Your task to perform on an android device: turn vacation reply on in the gmail app Image 0: 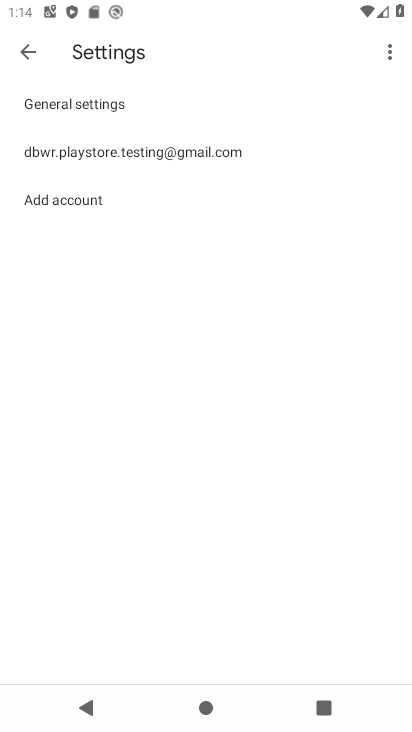
Step 0: press home button
Your task to perform on an android device: turn vacation reply on in the gmail app Image 1: 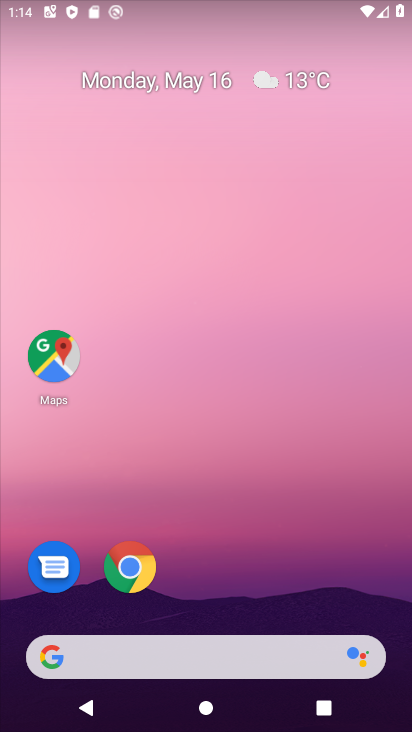
Step 1: drag from (139, 634) to (241, 155)
Your task to perform on an android device: turn vacation reply on in the gmail app Image 2: 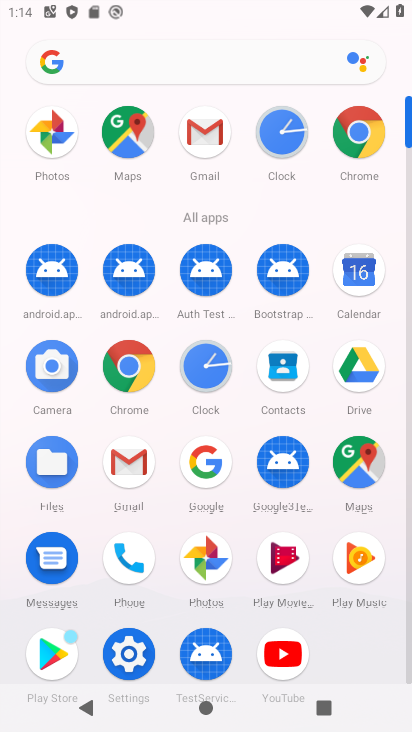
Step 2: click (128, 466)
Your task to perform on an android device: turn vacation reply on in the gmail app Image 3: 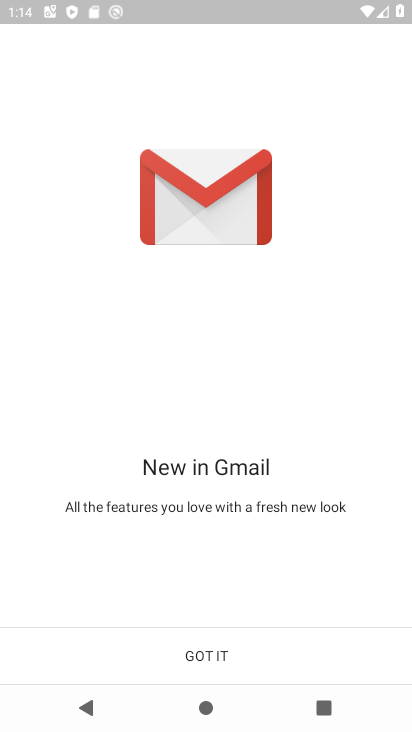
Step 3: click (205, 664)
Your task to perform on an android device: turn vacation reply on in the gmail app Image 4: 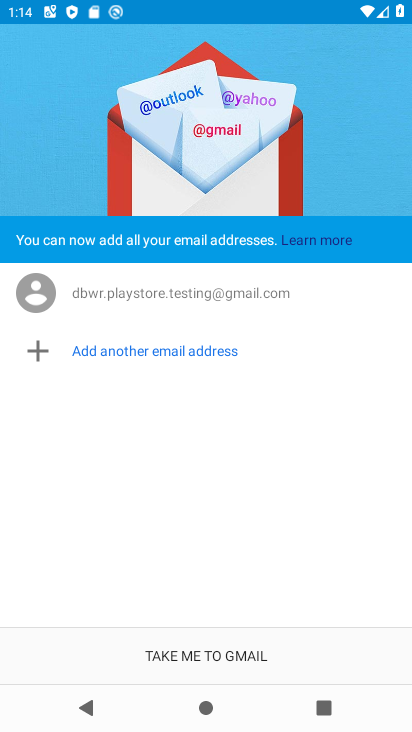
Step 4: click (204, 663)
Your task to perform on an android device: turn vacation reply on in the gmail app Image 5: 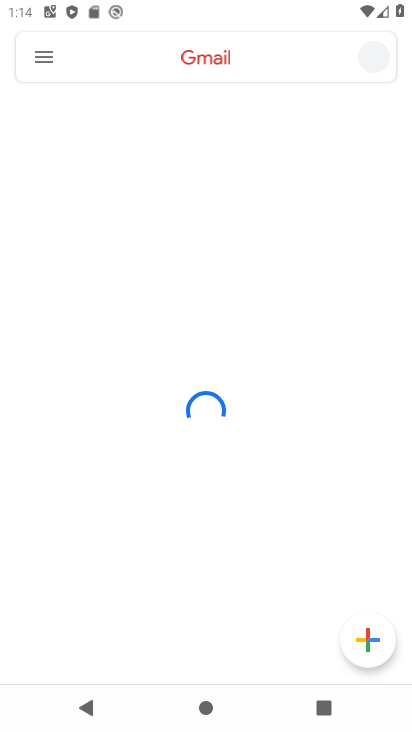
Step 5: click (52, 56)
Your task to perform on an android device: turn vacation reply on in the gmail app Image 6: 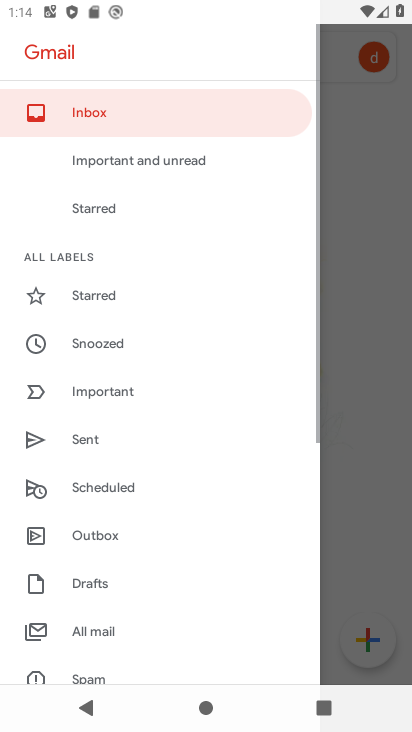
Step 6: drag from (64, 680) to (195, 275)
Your task to perform on an android device: turn vacation reply on in the gmail app Image 7: 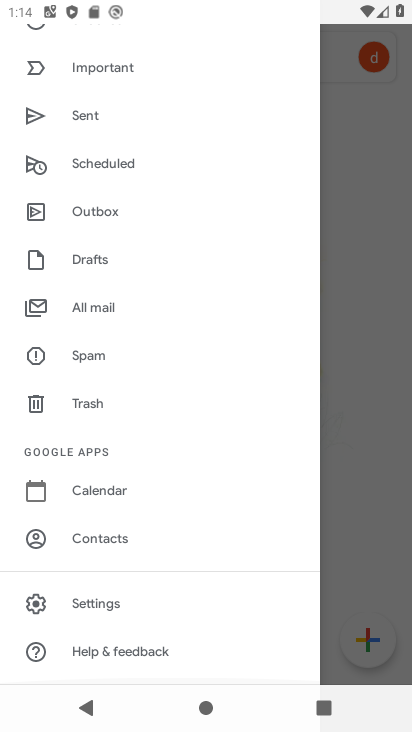
Step 7: drag from (108, 611) to (183, 377)
Your task to perform on an android device: turn vacation reply on in the gmail app Image 8: 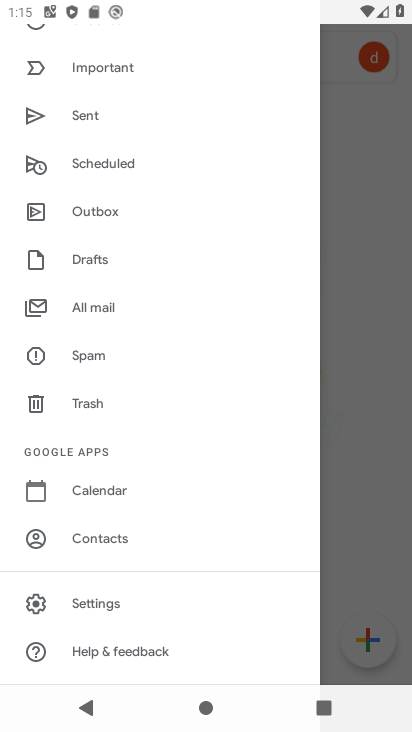
Step 8: click (144, 582)
Your task to perform on an android device: turn vacation reply on in the gmail app Image 9: 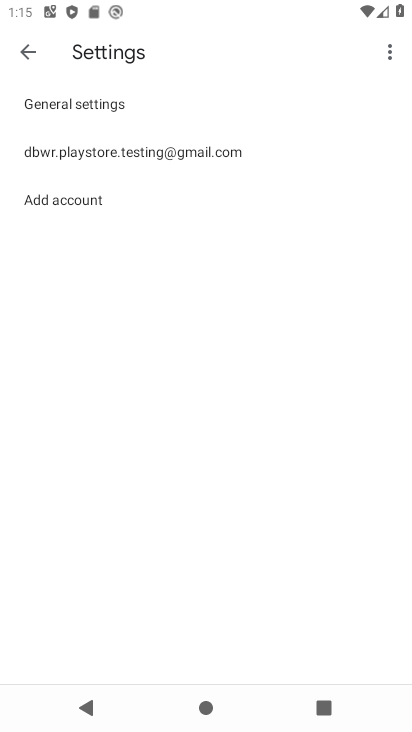
Step 9: click (245, 159)
Your task to perform on an android device: turn vacation reply on in the gmail app Image 10: 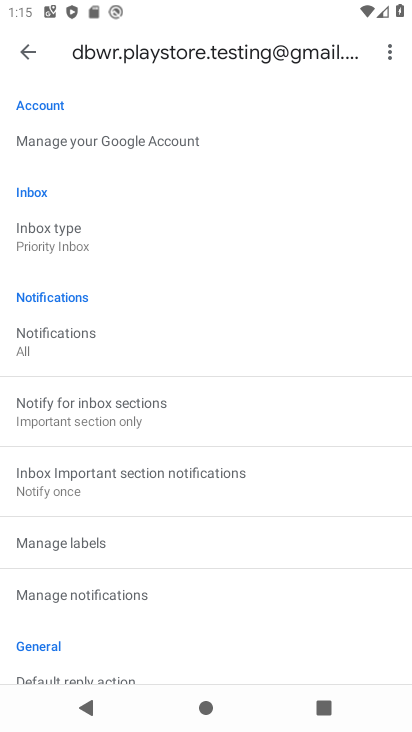
Step 10: drag from (121, 605) to (190, 433)
Your task to perform on an android device: turn vacation reply on in the gmail app Image 11: 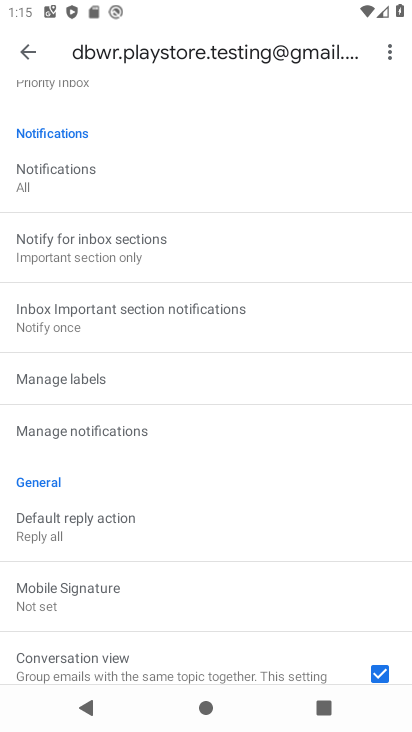
Step 11: drag from (149, 660) to (270, 340)
Your task to perform on an android device: turn vacation reply on in the gmail app Image 12: 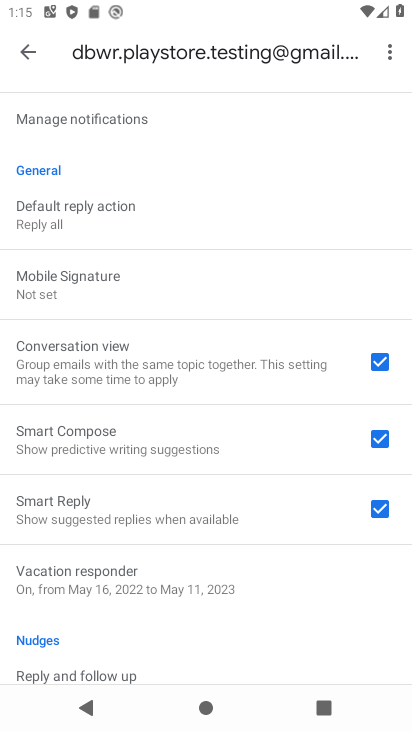
Step 12: click (149, 578)
Your task to perform on an android device: turn vacation reply on in the gmail app Image 13: 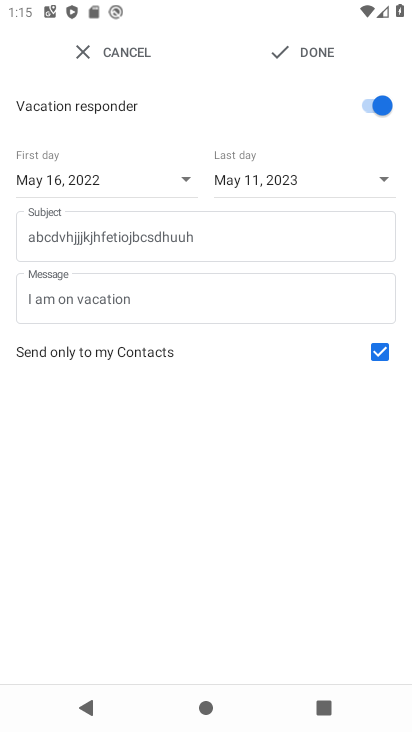
Step 13: task complete